Your task to perform on an android device: turn off notifications in google photos Image 0: 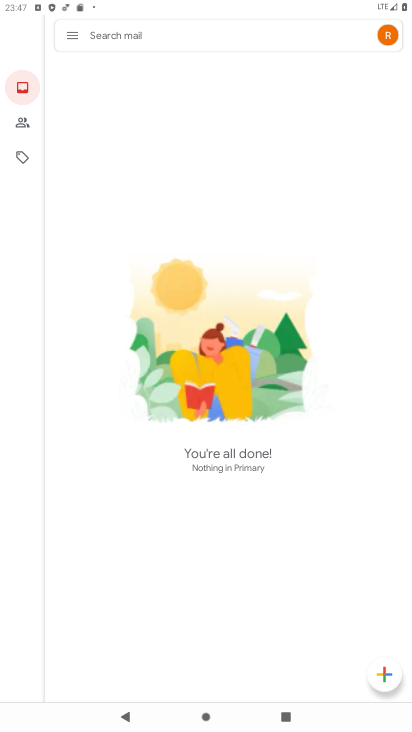
Step 0: press home button
Your task to perform on an android device: turn off notifications in google photos Image 1: 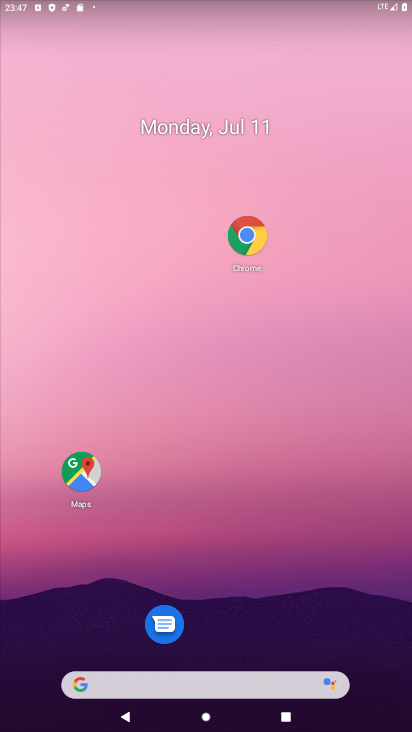
Step 1: drag from (234, 633) to (205, 182)
Your task to perform on an android device: turn off notifications in google photos Image 2: 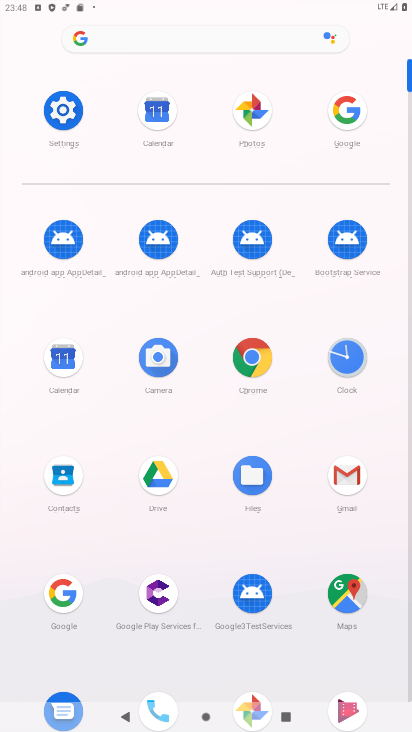
Step 2: click (260, 133)
Your task to perform on an android device: turn off notifications in google photos Image 3: 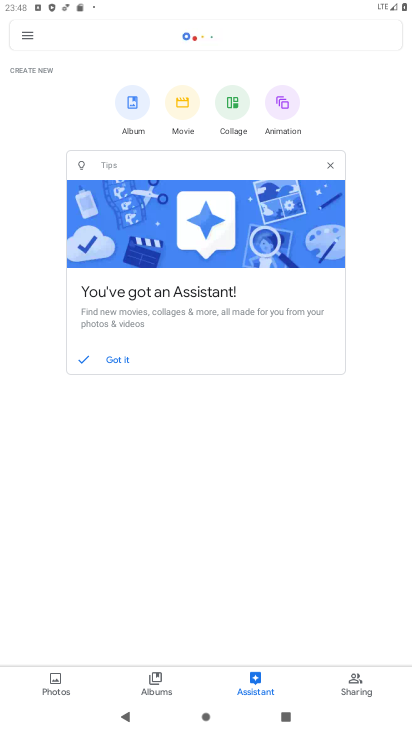
Step 3: click (29, 30)
Your task to perform on an android device: turn off notifications in google photos Image 4: 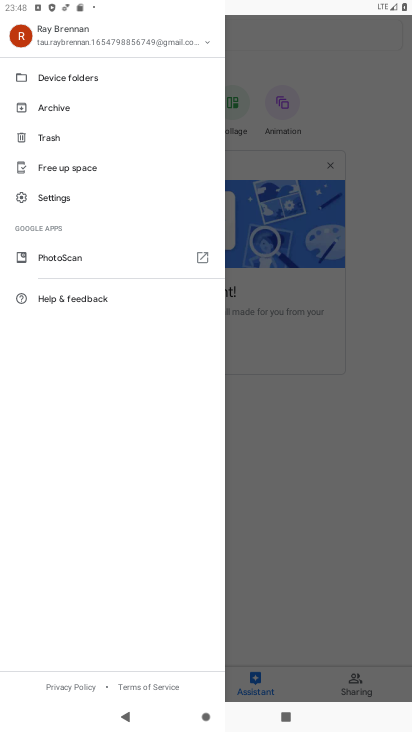
Step 4: click (77, 196)
Your task to perform on an android device: turn off notifications in google photos Image 5: 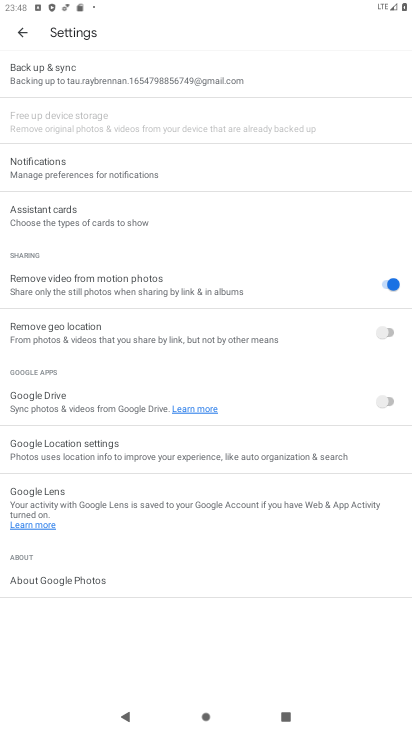
Step 5: click (122, 175)
Your task to perform on an android device: turn off notifications in google photos Image 6: 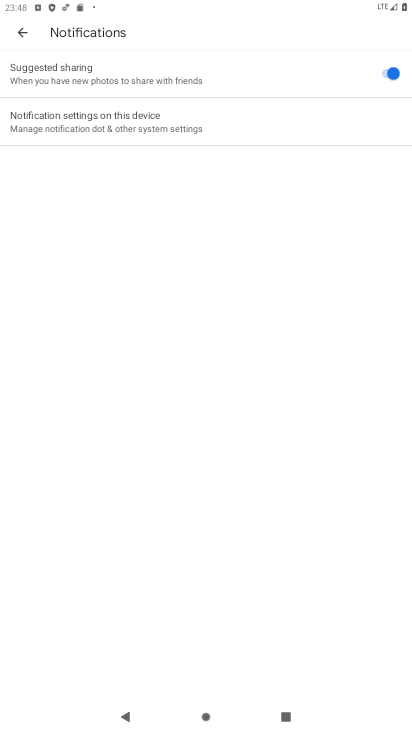
Step 6: click (237, 125)
Your task to perform on an android device: turn off notifications in google photos Image 7: 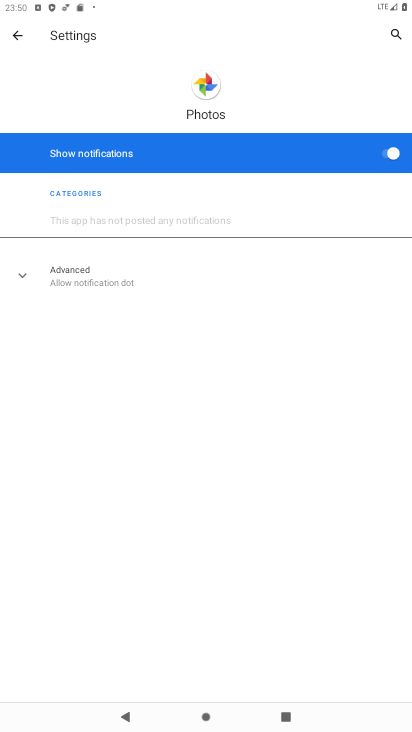
Step 7: click (383, 149)
Your task to perform on an android device: turn off notifications in google photos Image 8: 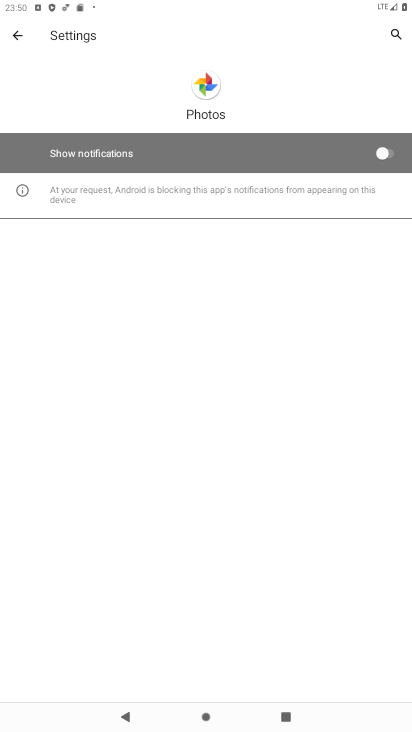
Step 8: task complete